Your task to perform on an android device: uninstall "DuckDuckGo Privacy Browser" Image 0: 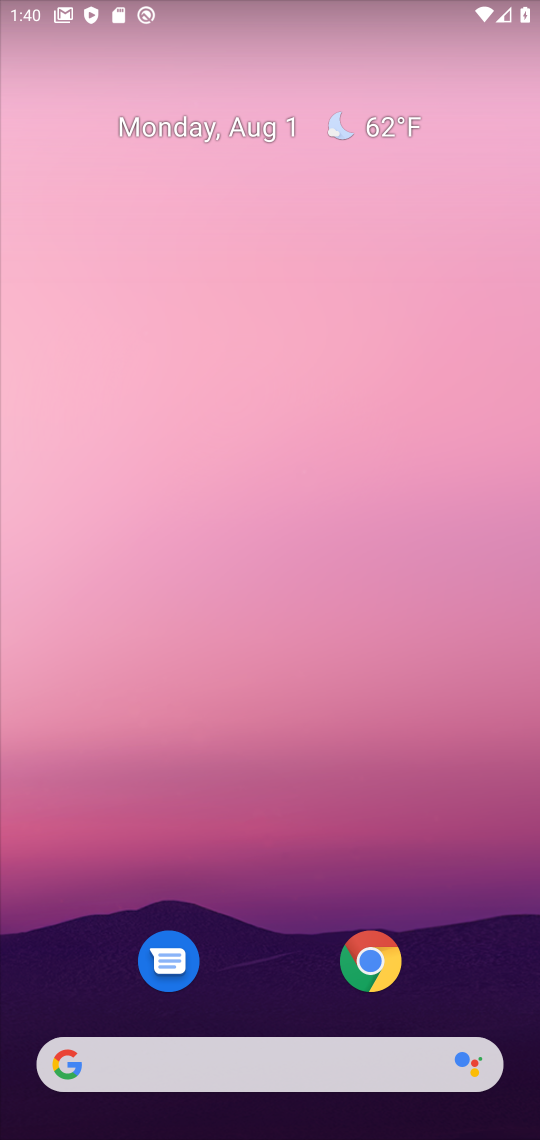
Step 0: drag from (289, 894) to (338, 5)
Your task to perform on an android device: uninstall "DuckDuckGo Privacy Browser" Image 1: 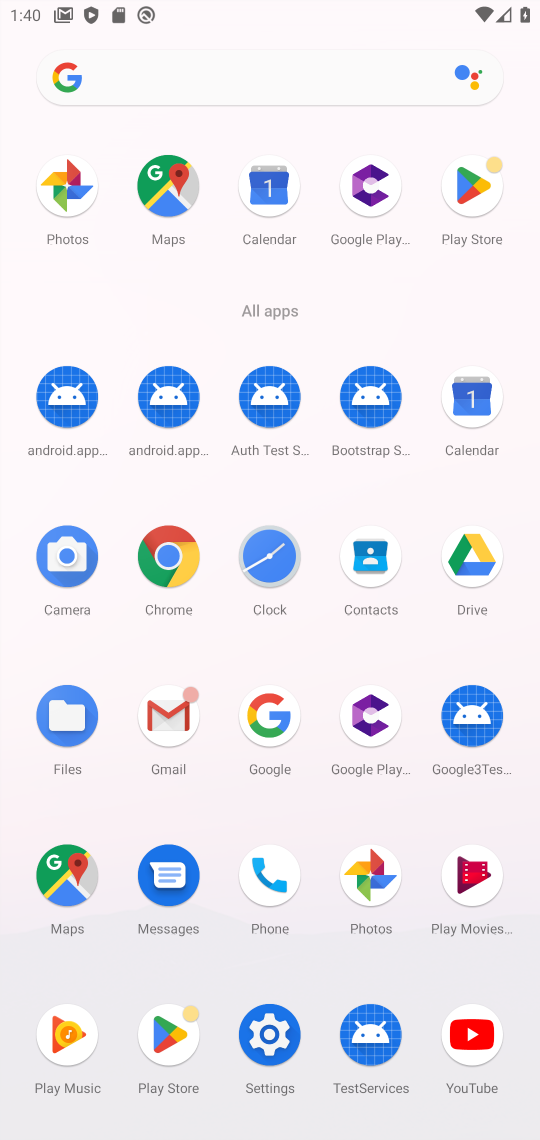
Step 1: click (462, 193)
Your task to perform on an android device: uninstall "DuckDuckGo Privacy Browser" Image 2: 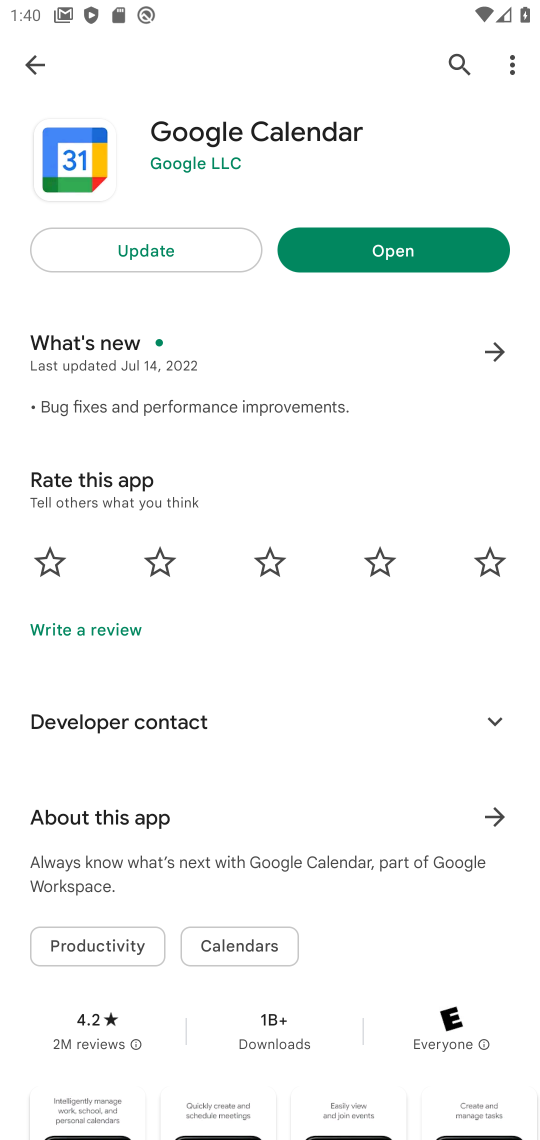
Step 2: click (445, 51)
Your task to perform on an android device: uninstall "DuckDuckGo Privacy Browser" Image 3: 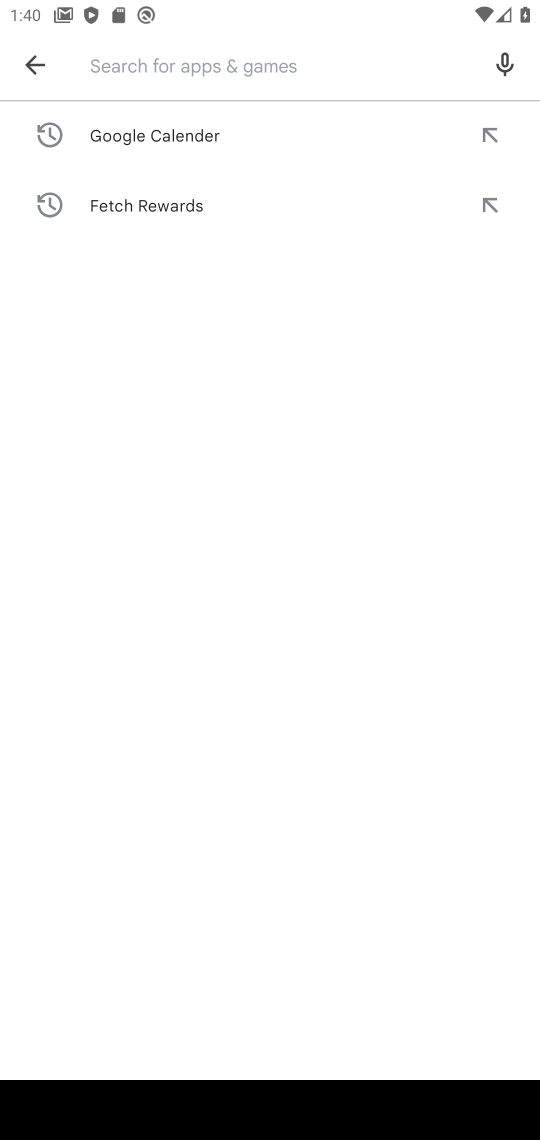
Step 3: type "DuckDckGo Privacy Brower"
Your task to perform on an android device: uninstall "DuckDuckGo Privacy Browser" Image 4: 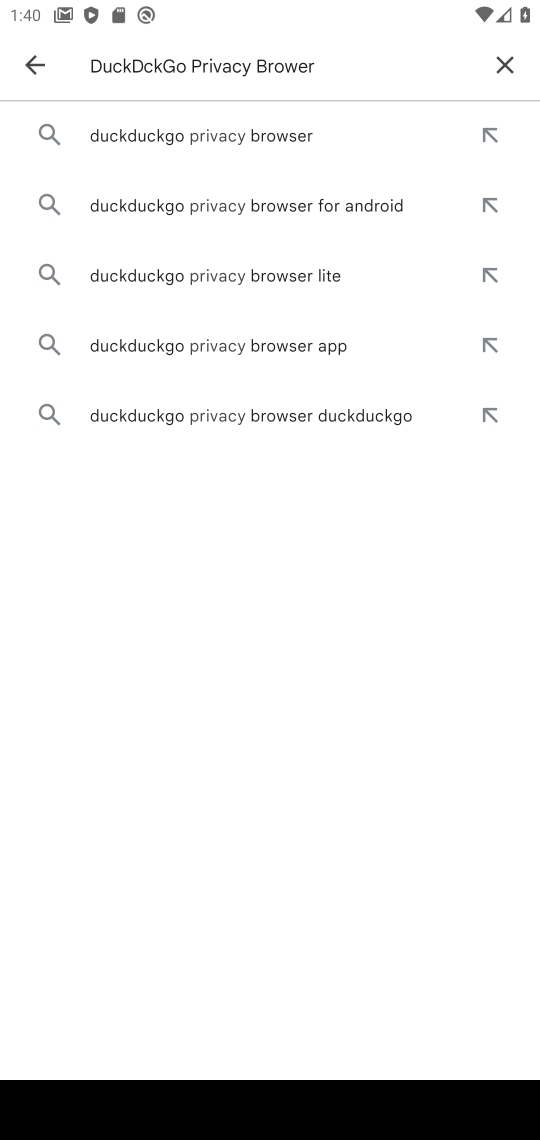
Step 4: press enter
Your task to perform on an android device: uninstall "DuckDuckGo Privacy Browser" Image 5: 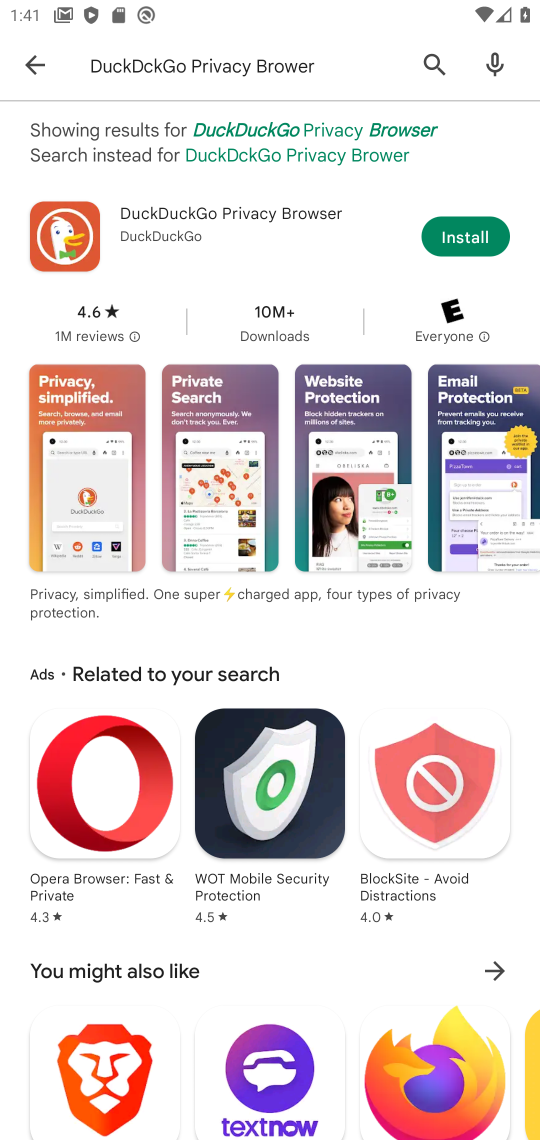
Step 5: task complete